Your task to perform on an android device: Go to Reddit.com Image 0: 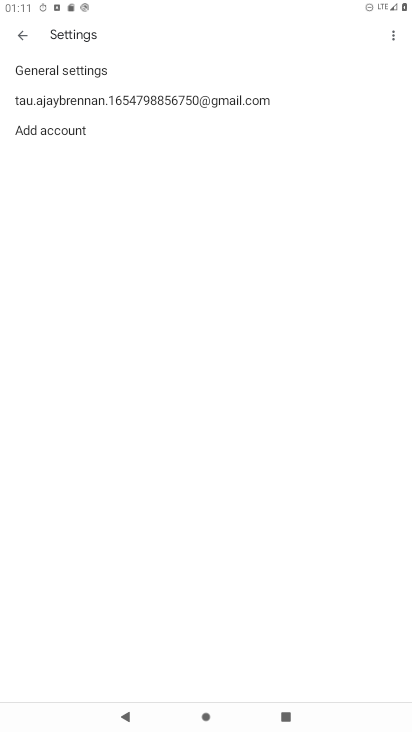
Step 0: press home button
Your task to perform on an android device: Go to Reddit.com Image 1: 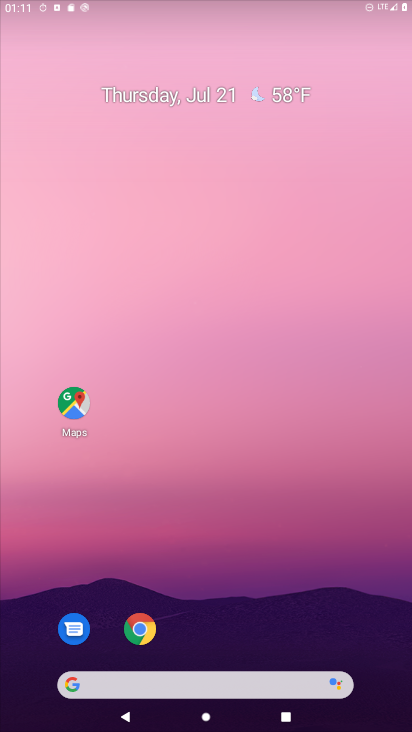
Step 1: click (156, 634)
Your task to perform on an android device: Go to Reddit.com Image 2: 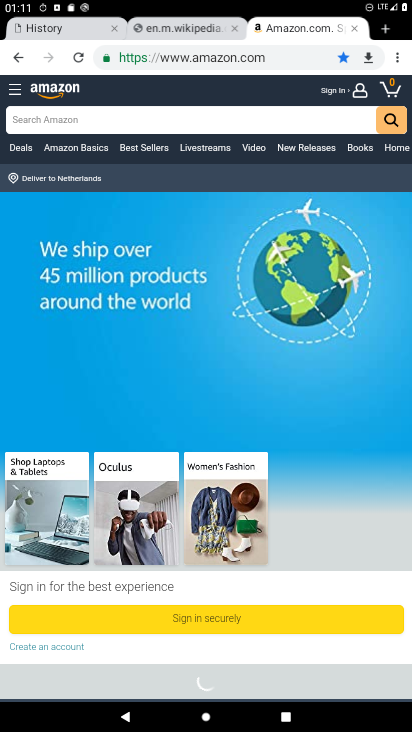
Step 2: click (380, 39)
Your task to perform on an android device: Go to Reddit.com Image 3: 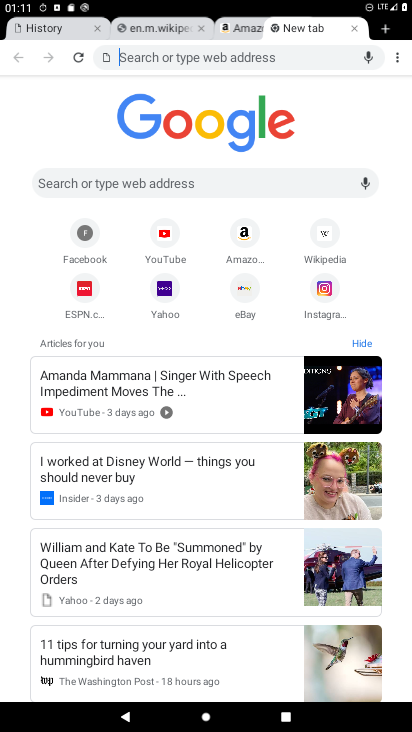
Step 3: click (157, 189)
Your task to perform on an android device: Go to Reddit.com Image 4: 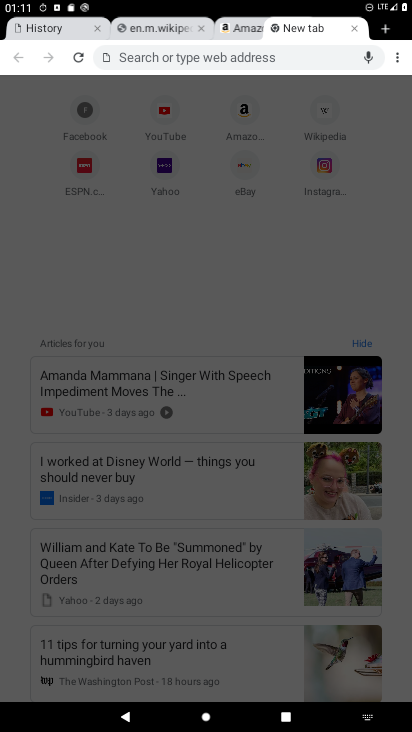
Step 4: type "Reddit.com"
Your task to perform on an android device: Go to Reddit.com Image 5: 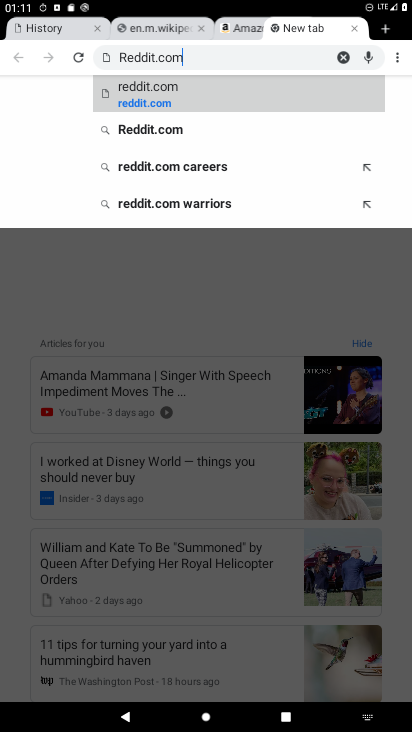
Step 5: click (275, 106)
Your task to perform on an android device: Go to Reddit.com Image 6: 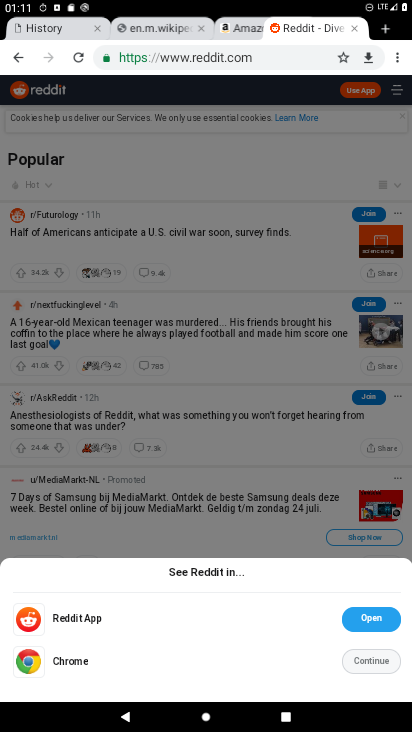
Step 6: task complete